Your task to perform on an android device: Open Wikipedia Image 0: 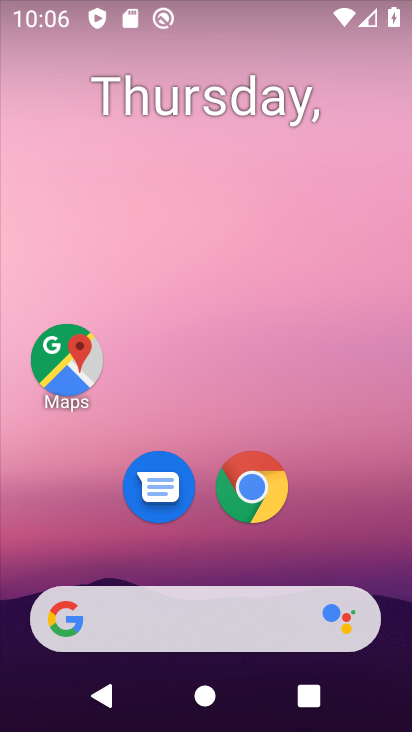
Step 0: click (241, 490)
Your task to perform on an android device: Open Wikipedia Image 1: 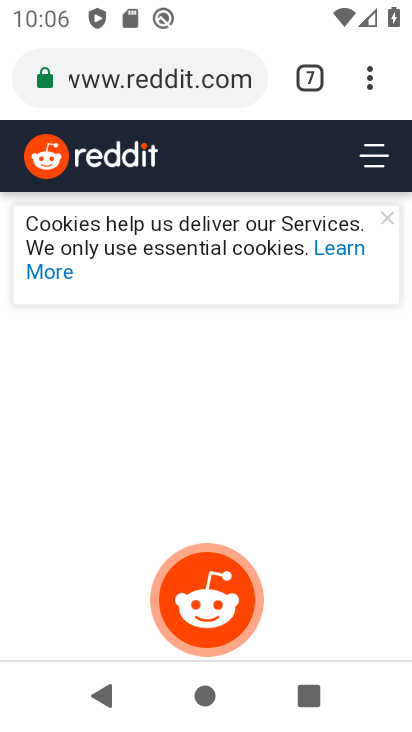
Step 1: click (310, 83)
Your task to perform on an android device: Open Wikipedia Image 2: 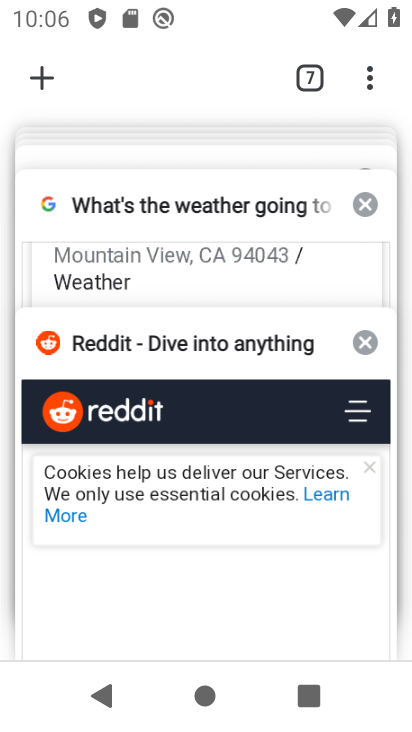
Step 2: drag from (203, 241) to (208, 641)
Your task to perform on an android device: Open Wikipedia Image 3: 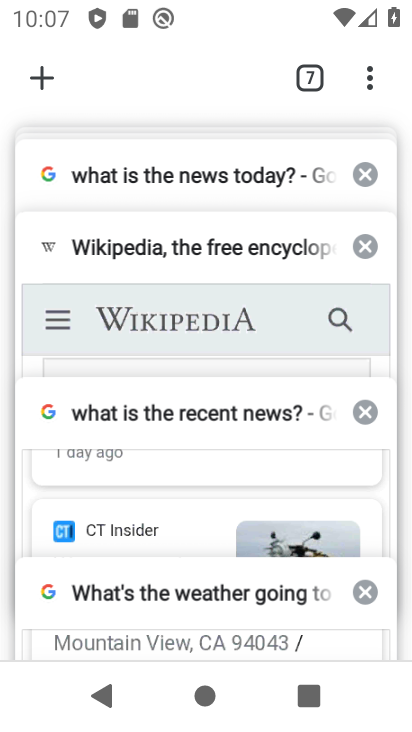
Step 3: click (210, 358)
Your task to perform on an android device: Open Wikipedia Image 4: 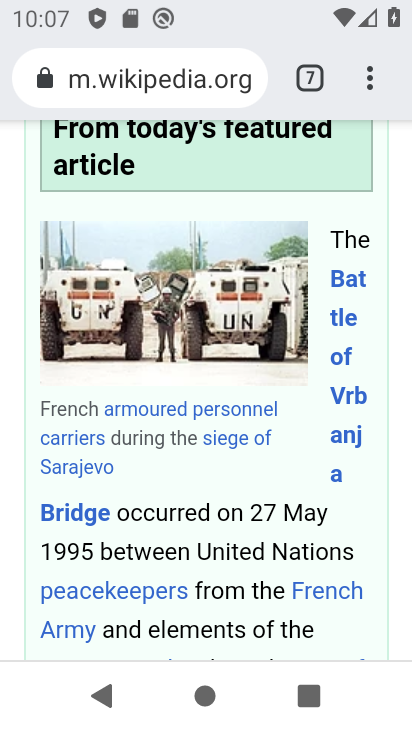
Step 4: task complete